Your task to perform on an android device: turn notification dots on Image 0: 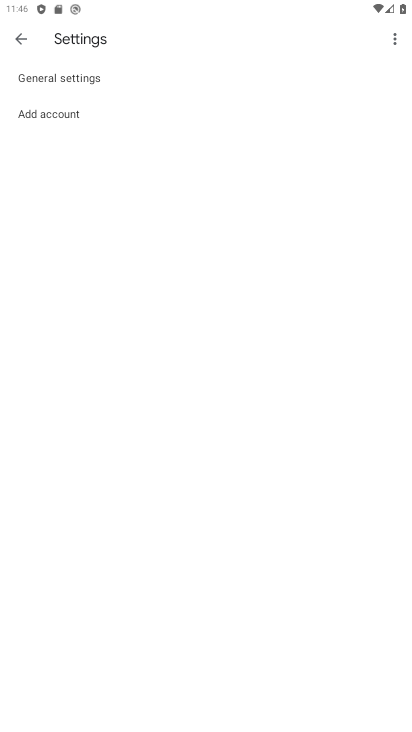
Step 0: click (281, 296)
Your task to perform on an android device: turn notification dots on Image 1: 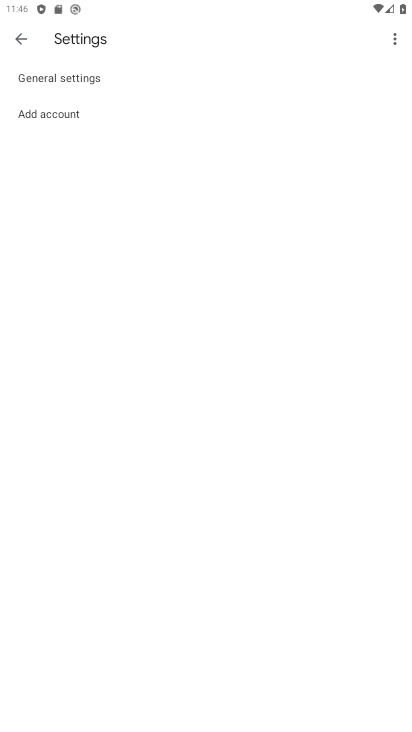
Step 1: task complete